Your task to perform on an android device: turn on airplane mode Image 0: 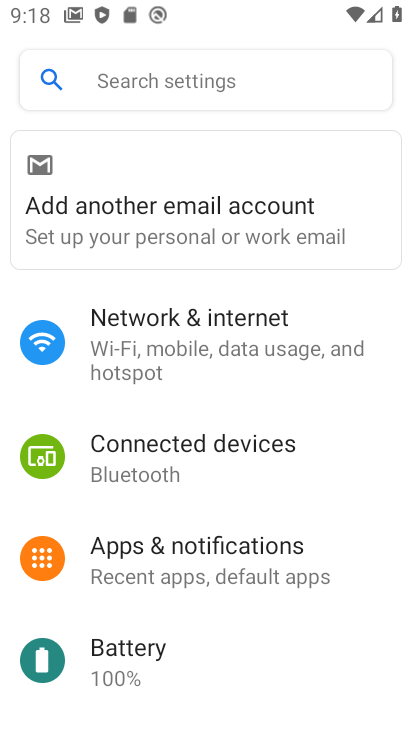
Step 0: click (230, 345)
Your task to perform on an android device: turn on airplane mode Image 1: 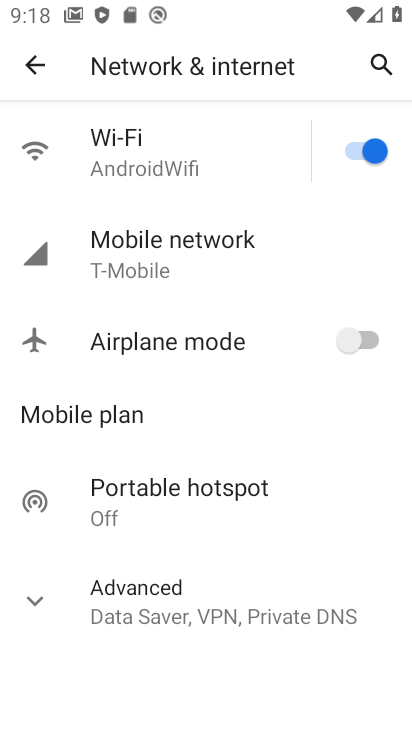
Step 1: click (356, 338)
Your task to perform on an android device: turn on airplane mode Image 2: 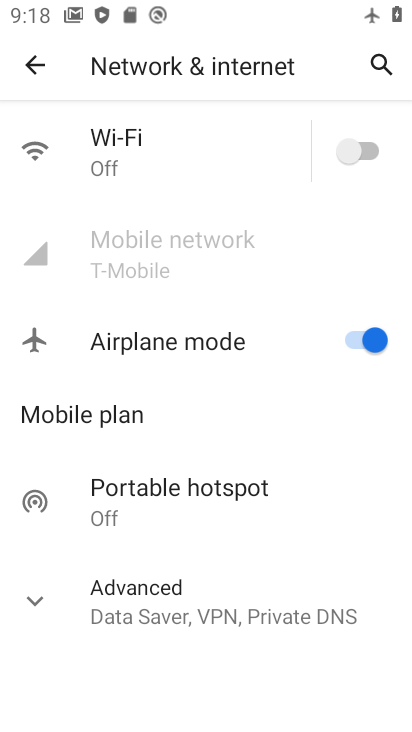
Step 2: task complete